Your task to perform on an android device: toggle notifications settings in the gmail app Image 0: 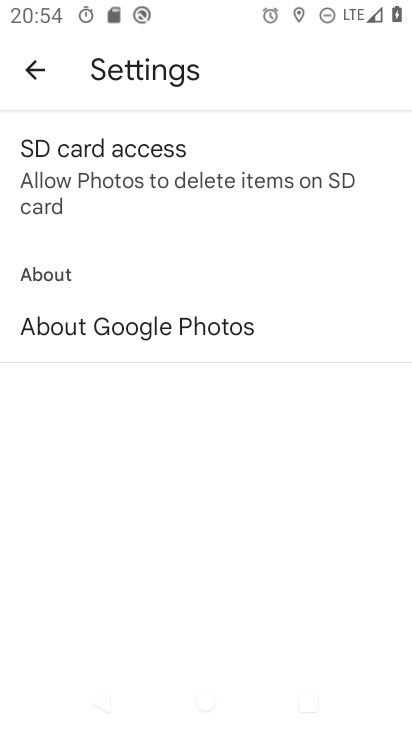
Step 0: press home button
Your task to perform on an android device: toggle notifications settings in the gmail app Image 1: 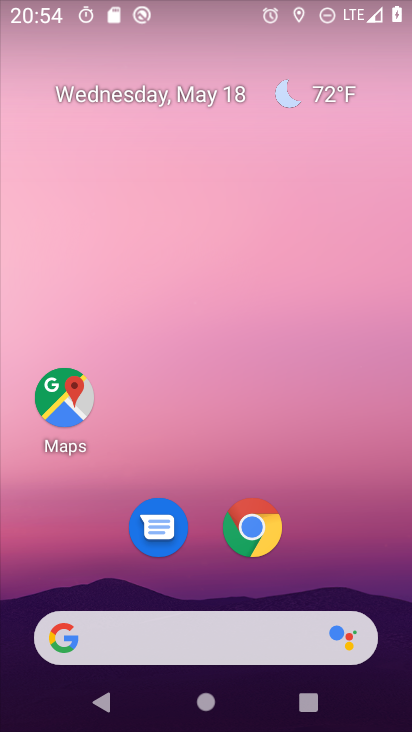
Step 1: drag from (392, 667) to (390, 203)
Your task to perform on an android device: toggle notifications settings in the gmail app Image 2: 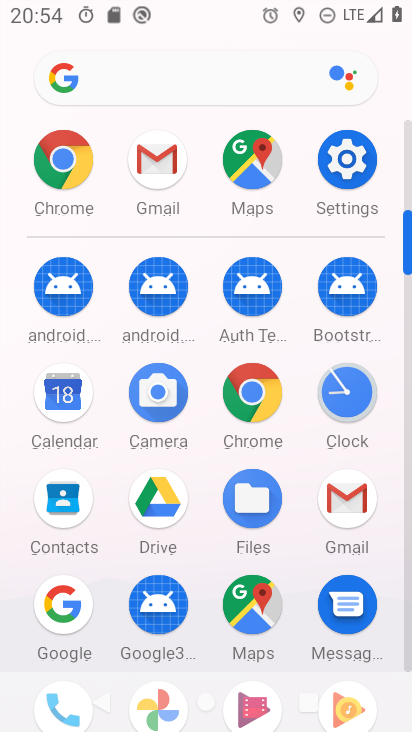
Step 2: click (338, 485)
Your task to perform on an android device: toggle notifications settings in the gmail app Image 3: 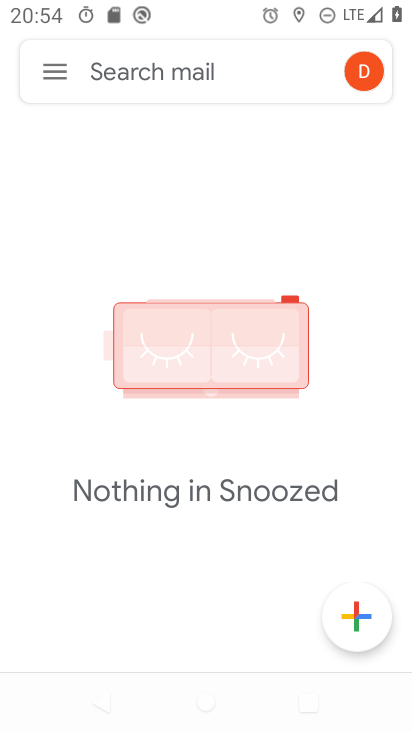
Step 3: click (52, 70)
Your task to perform on an android device: toggle notifications settings in the gmail app Image 4: 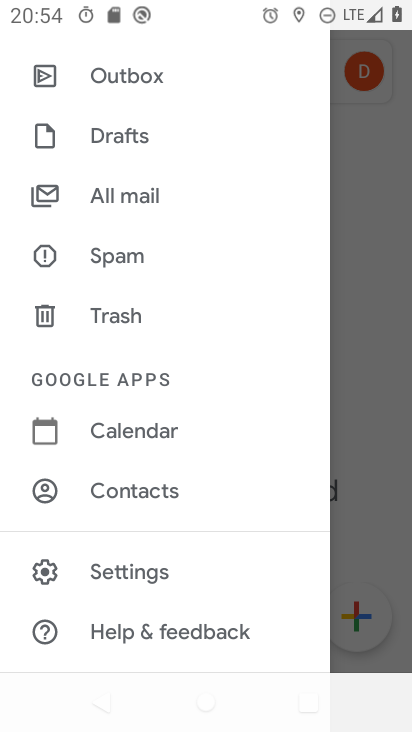
Step 4: click (83, 573)
Your task to perform on an android device: toggle notifications settings in the gmail app Image 5: 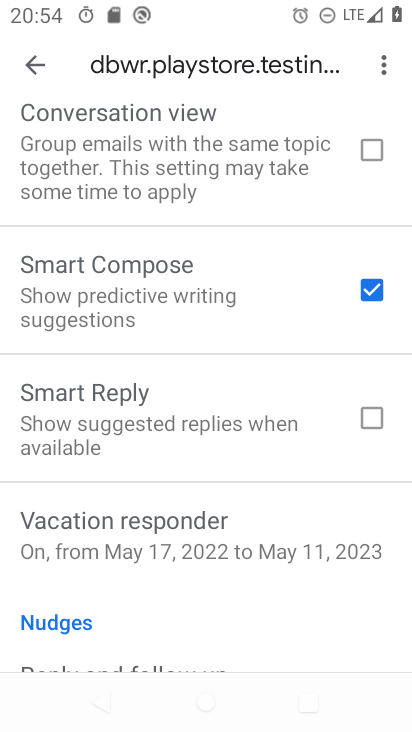
Step 5: drag from (192, 627) to (203, 292)
Your task to perform on an android device: toggle notifications settings in the gmail app Image 6: 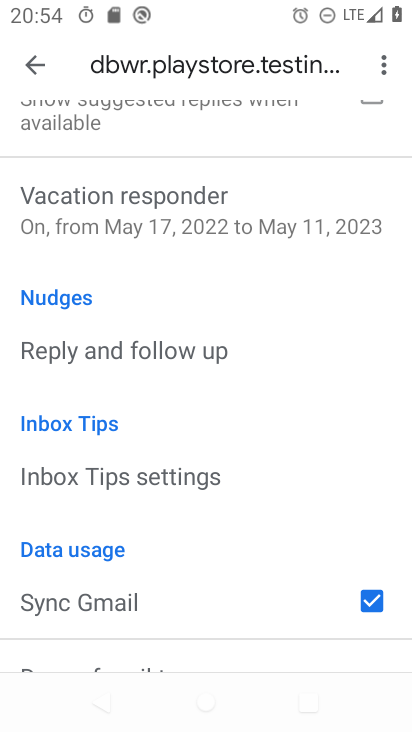
Step 6: click (27, 61)
Your task to perform on an android device: toggle notifications settings in the gmail app Image 7: 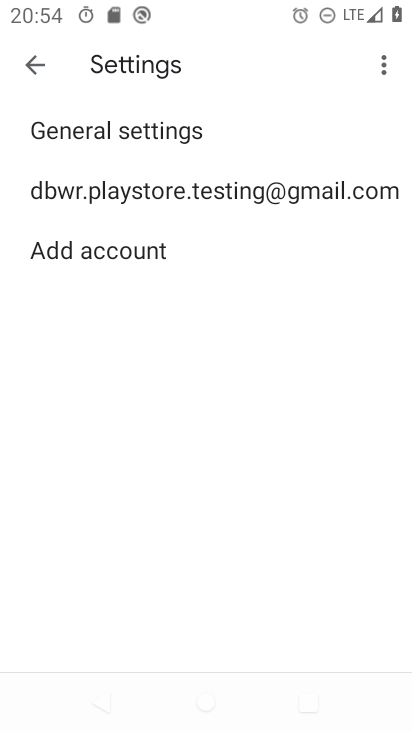
Step 7: click (84, 129)
Your task to perform on an android device: toggle notifications settings in the gmail app Image 8: 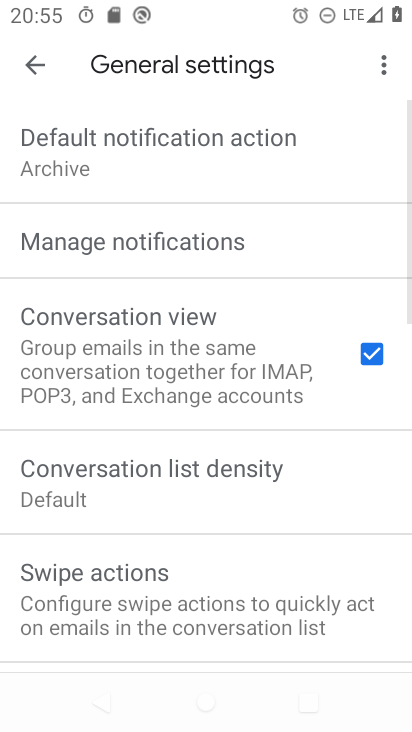
Step 8: click (92, 232)
Your task to perform on an android device: toggle notifications settings in the gmail app Image 9: 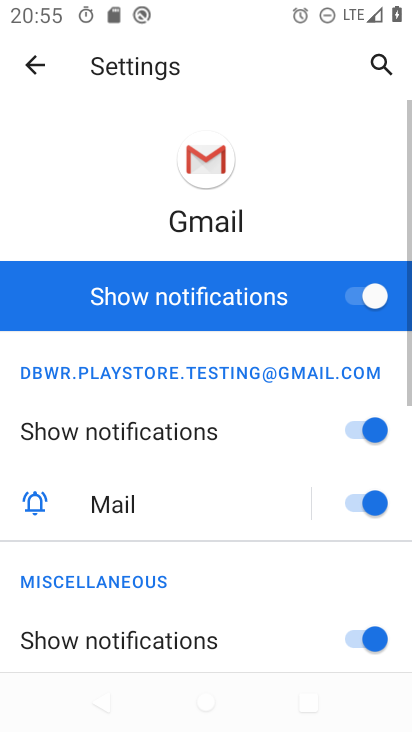
Step 9: click (348, 291)
Your task to perform on an android device: toggle notifications settings in the gmail app Image 10: 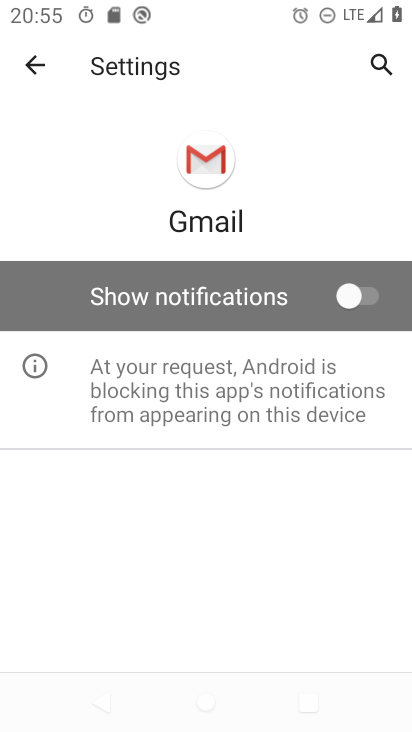
Step 10: task complete